Your task to perform on an android device: set the timer Image 0: 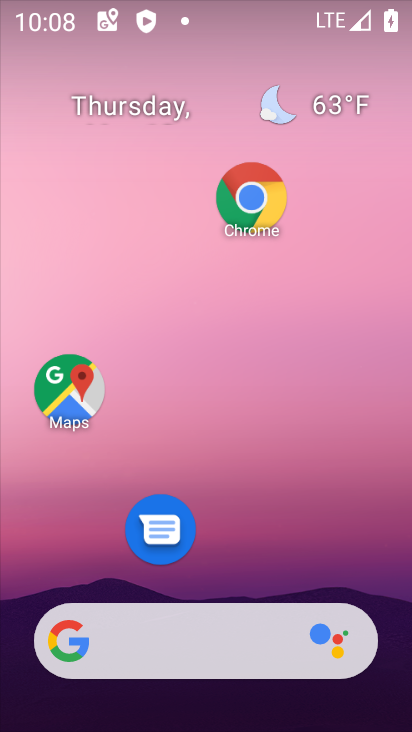
Step 0: drag from (241, 670) to (238, 15)
Your task to perform on an android device: set the timer Image 1: 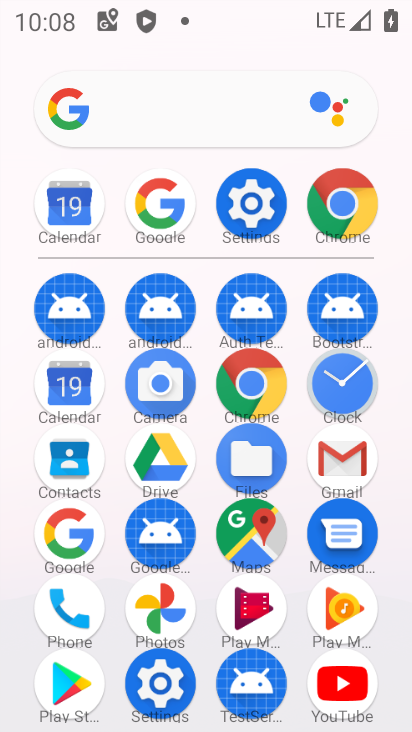
Step 1: click (370, 398)
Your task to perform on an android device: set the timer Image 2: 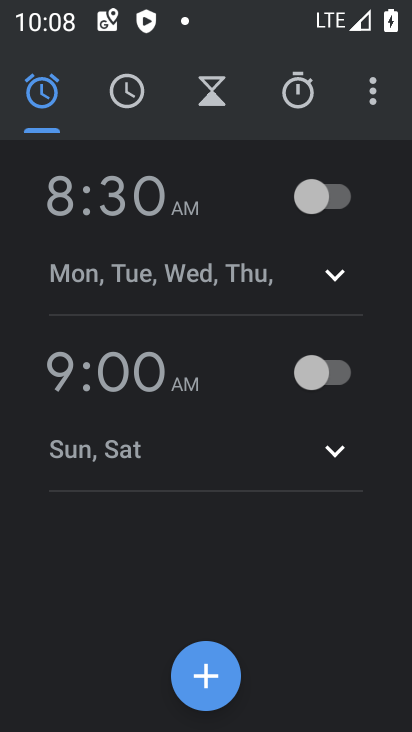
Step 2: click (210, 97)
Your task to perform on an android device: set the timer Image 3: 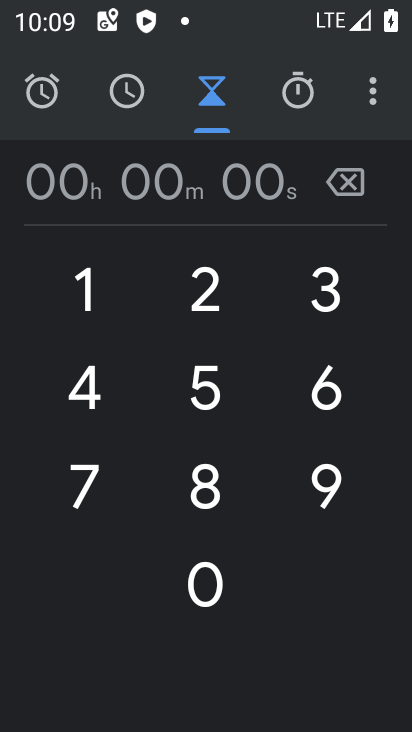
Step 3: click (228, 296)
Your task to perform on an android device: set the timer Image 4: 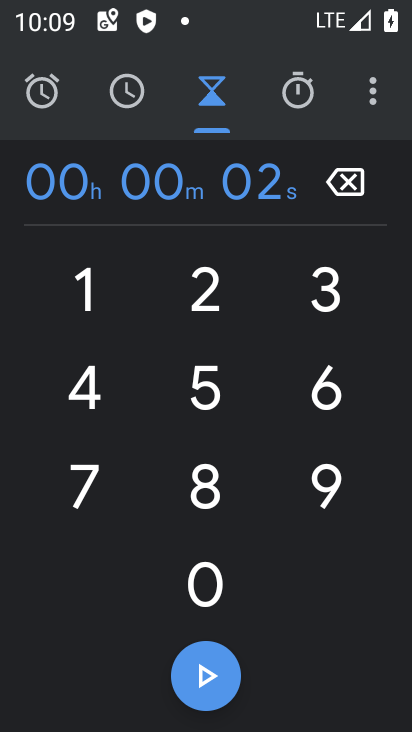
Step 4: click (211, 687)
Your task to perform on an android device: set the timer Image 5: 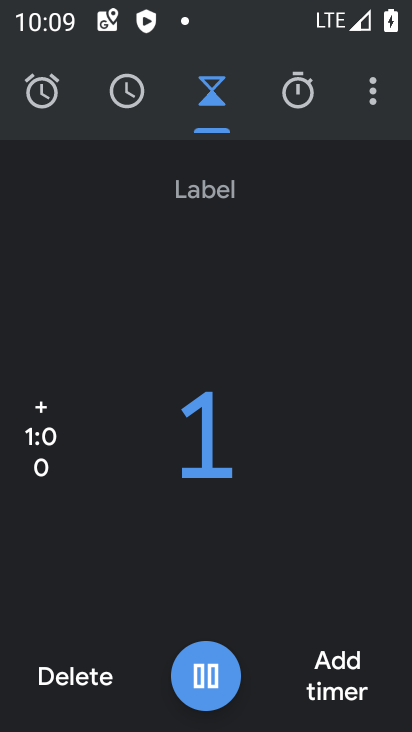
Step 5: task complete